Your task to perform on an android device: open the mobile data screen to see how much data has been used Image 0: 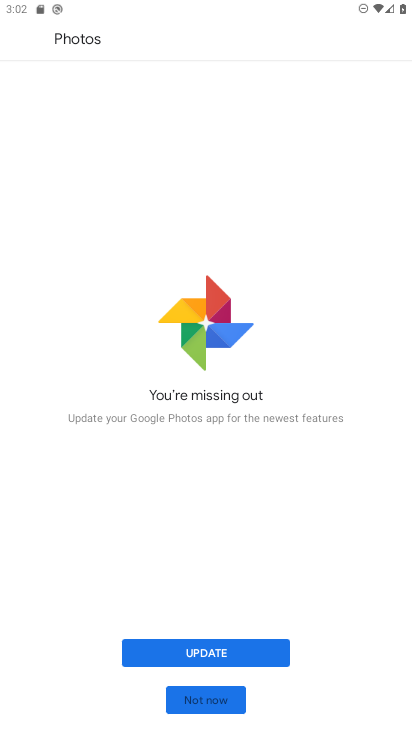
Step 0: press home button
Your task to perform on an android device: open the mobile data screen to see how much data has been used Image 1: 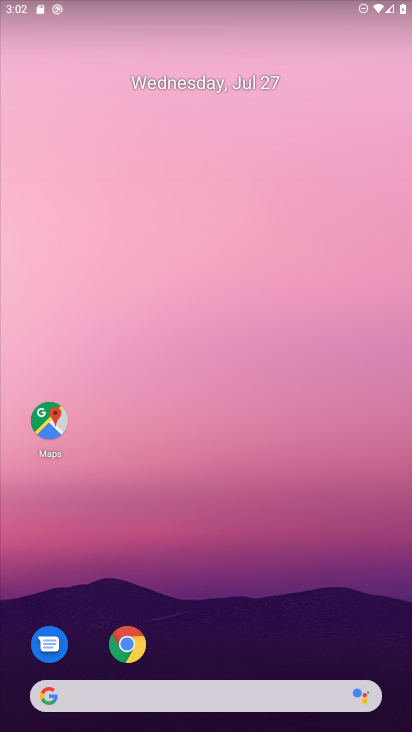
Step 1: drag from (177, 580) to (117, 13)
Your task to perform on an android device: open the mobile data screen to see how much data has been used Image 2: 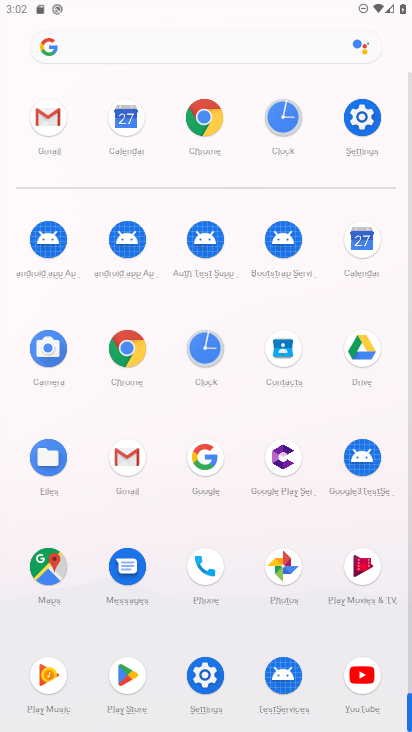
Step 2: click (367, 121)
Your task to perform on an android device: open the mobile data screen to see how much data has been used Image 3: 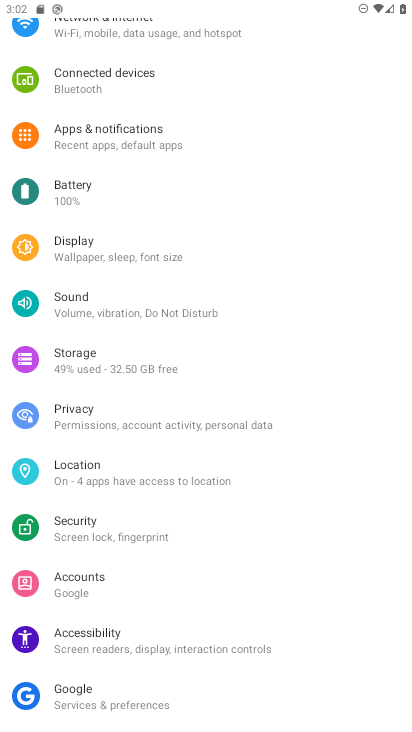
Step 3: drag from (188, 136) to (175, 323)
Your task to perform on an android device: open the mobile data screen to see how much data has been used Image 4: 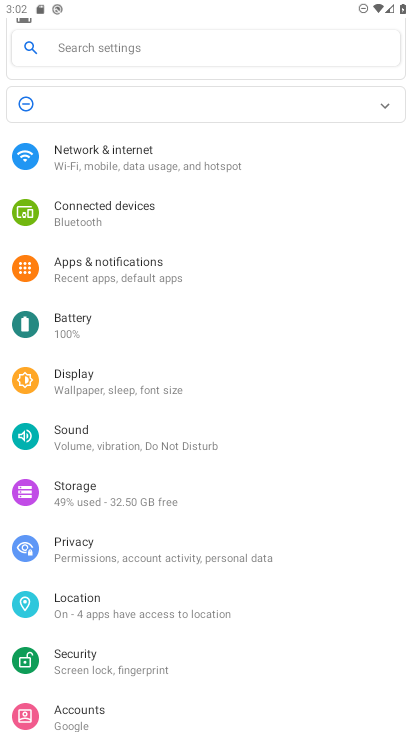
Step 4: click (137, 167)
Your task to perform on an android device: open the mobile data screen to see how much data has been used Image 5: 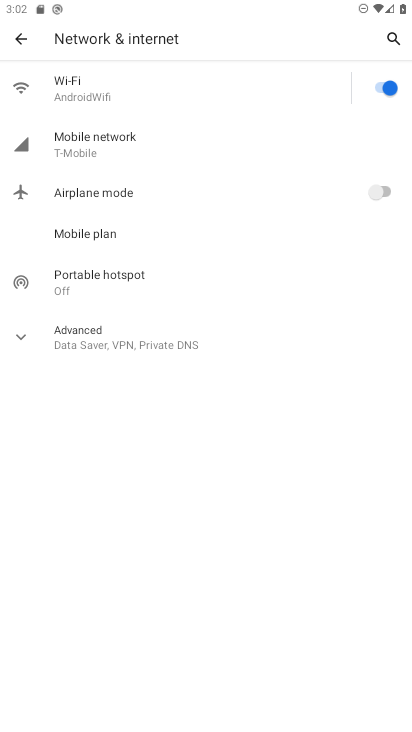
Step 5: click (105, 147)
Your task to perform on an android device: open the mobile data screen to see how much data has been used Image 6: 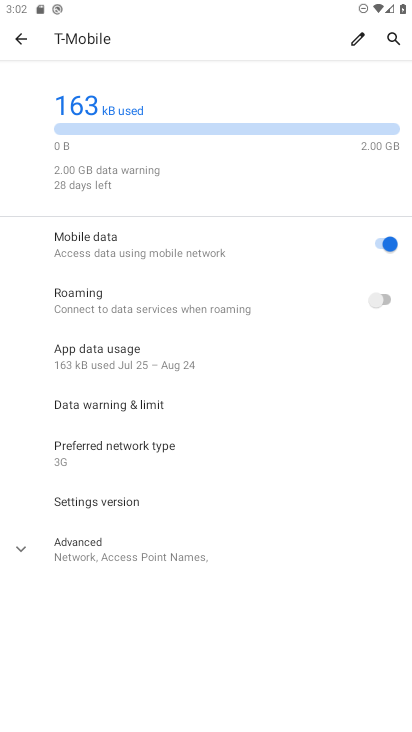
Step 6: click (132, 357)
Your task to perform on an android device: open the mobile data screen to see how much data has been used Image 7: 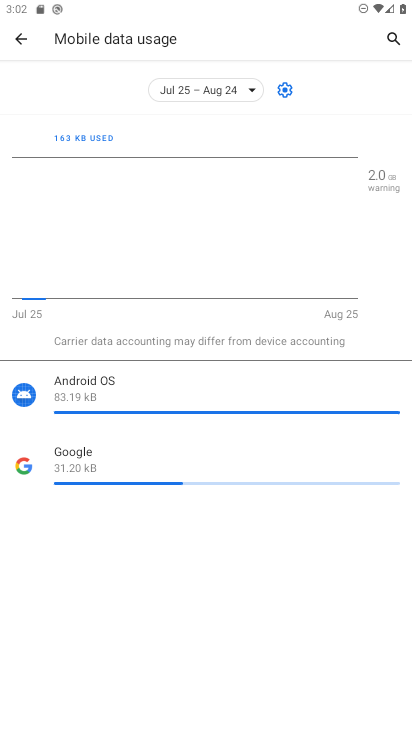
Step 7: task complete